Your task to perform on an android device: Open Chrome and go to settings Image 0: 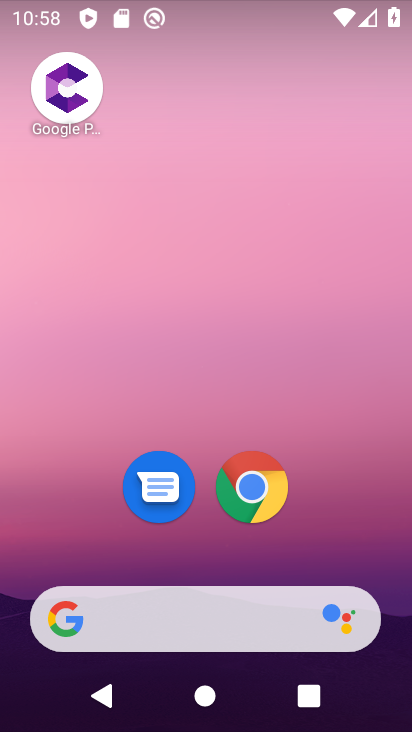
Step 0: click (238, 483)
Your task to perform on an android device: Open Chrome and go to settings Image 1: 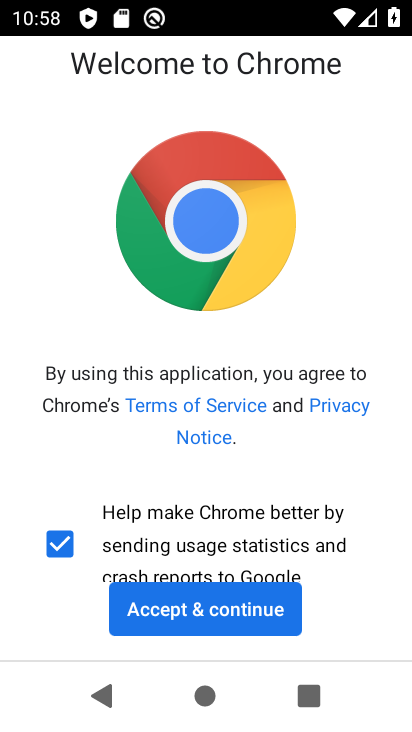
Step 1: click (152, 603)
Your task to perform on an android device: Open Chrome and go to settings Image 2: 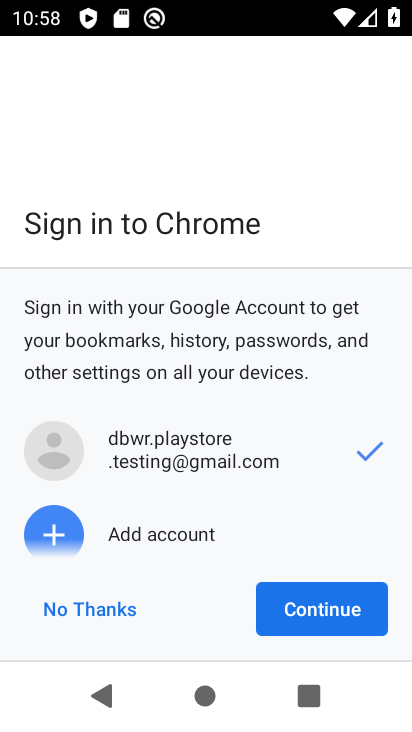
Step 2: click (90, 605)
Your task to perform on an android device: Open Chrome and go to settings Image 3: 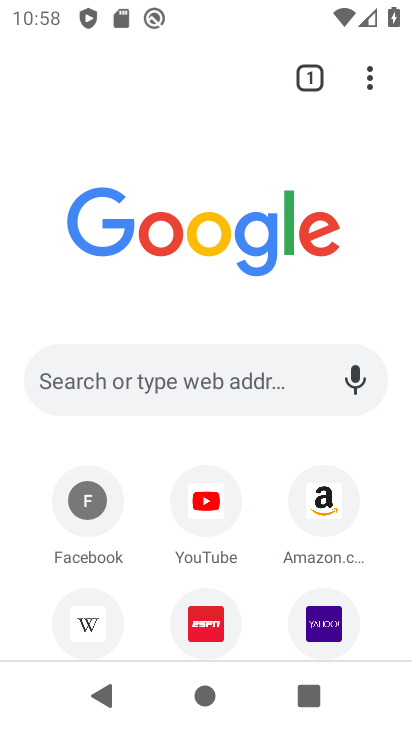
Step 3: click (367, 83)
Your task to perform on an android device: Open Chrome and go to settings Image 4: 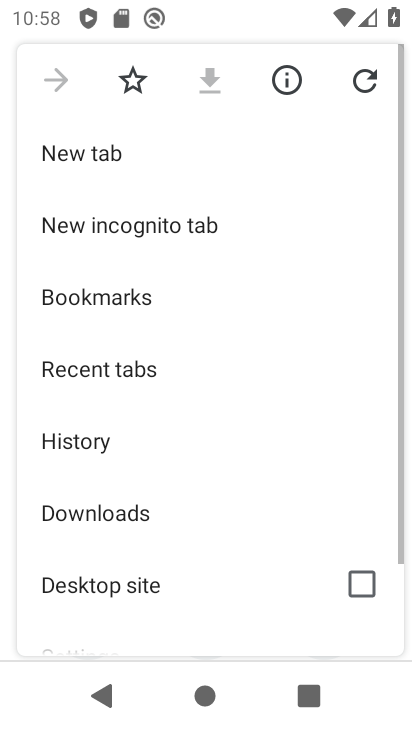
Step 4: drag from (22, 537) to (212, 216)
Your task to perform on an android device: Open Chrome and go to settings Image 5: 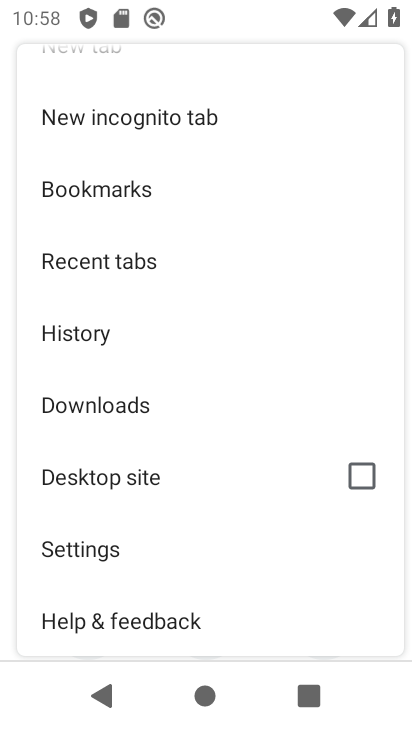
Step 5: drag from (74, 589) to (211, 319)
Your task to perform on an android device: Open Chrome and go to settings Image 6: 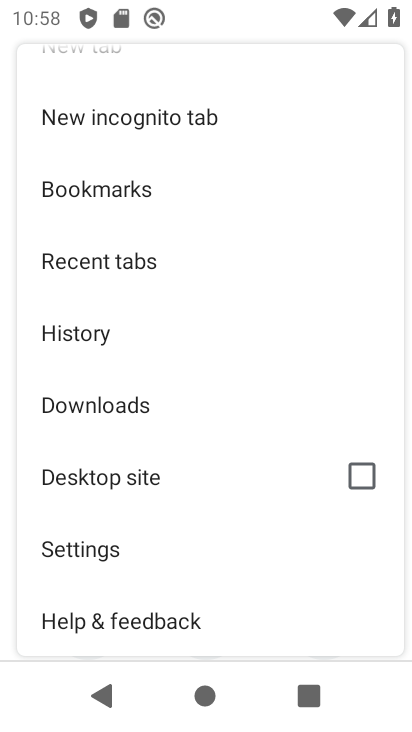
Step 6: click (86, 532)
Your task to perform on an android device: Open Chrome and go to settings Image 7: 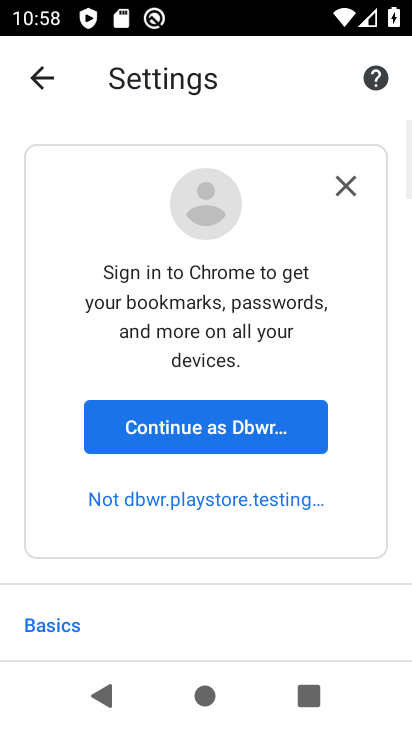
Step 7: click (342, 188)
Your task to perform on an android device: Open Chrome and go to settings Image 8: 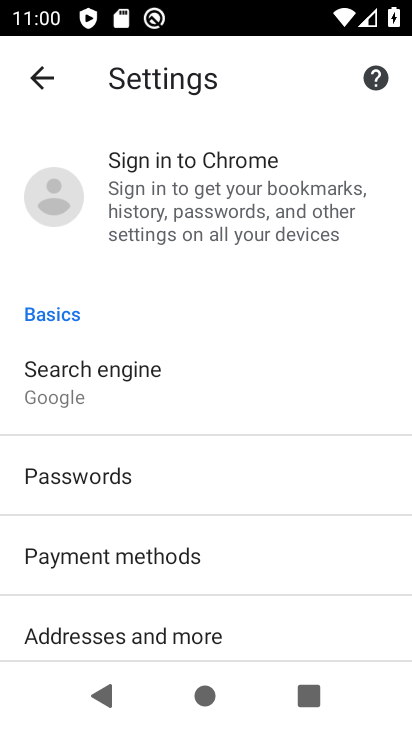
Step 8: task complete